Your task to perform on an android device: change the upload size in google photos Image 0: 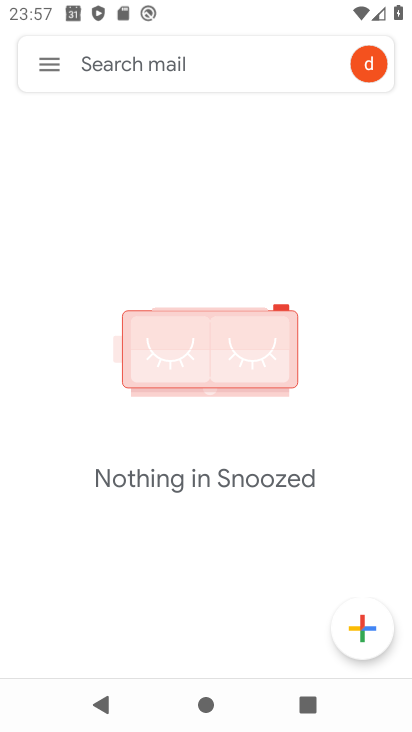
Step 0: press home button
Your task to perform on an android device: change the upload size in google photos Image 1: 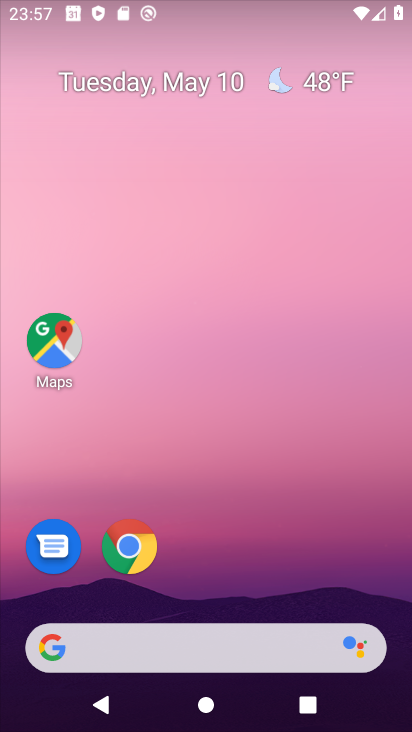
Step 1: drag from (219, 585) to (241, 108)
Your task to perform on an android device: change the upload size in google photos Image 2: 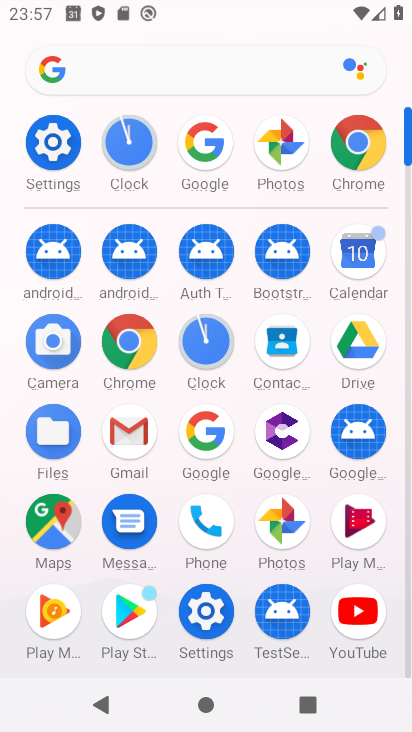
Step 2: click (278, 540)
Your task to perform on an android device: change the upload size in google photos Image 3: 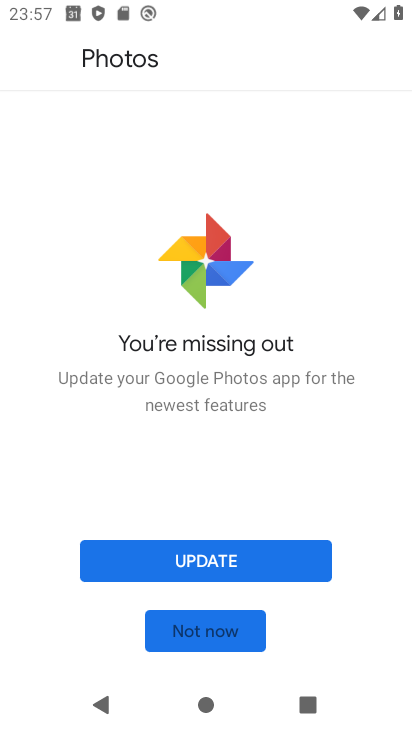
Step 3: click (236, 635)
Your task to perform on an android device: change the upload size in google photos Image 4: 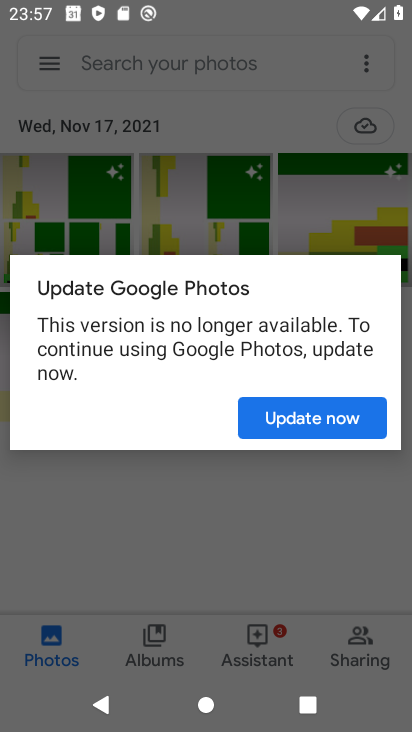
Step 4: click (319, 429)
Your task to perform on an android device: change the upload size in google photos Image 5: 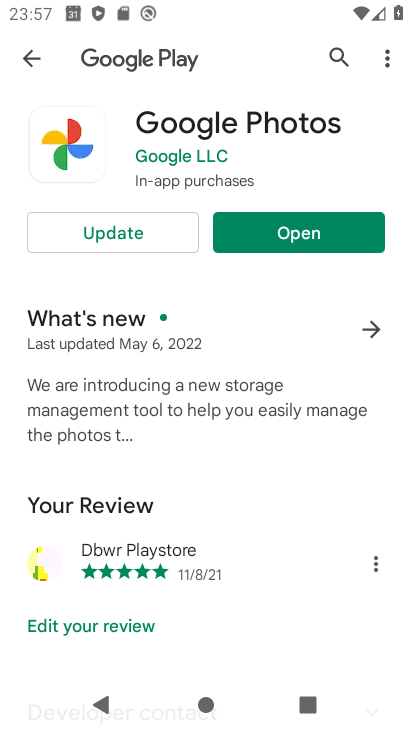
Step 5: click (293, 233)
Your task to perform on an android device: change the upload size in google photos Image 6: 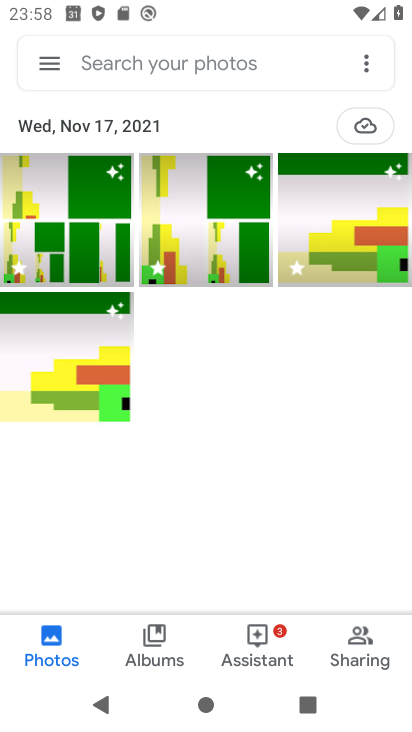
Step 6: click (54, 59)
Your task to perform on an android device: change the upload size in google photos Image 7: 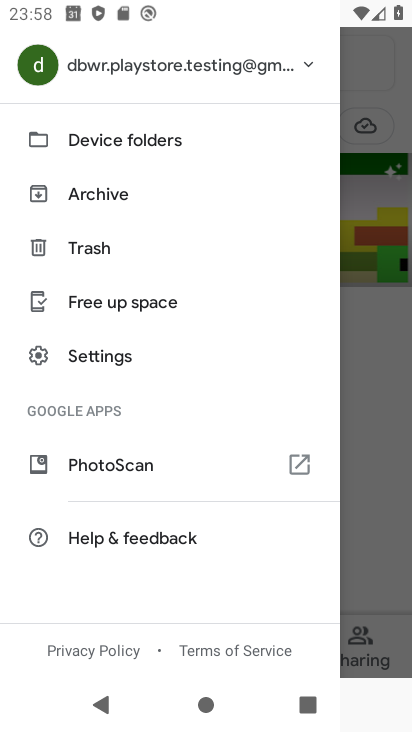
Step 7: click (115, 364)
Your task to perform on an android device: change the upload size in google photos Image 8: 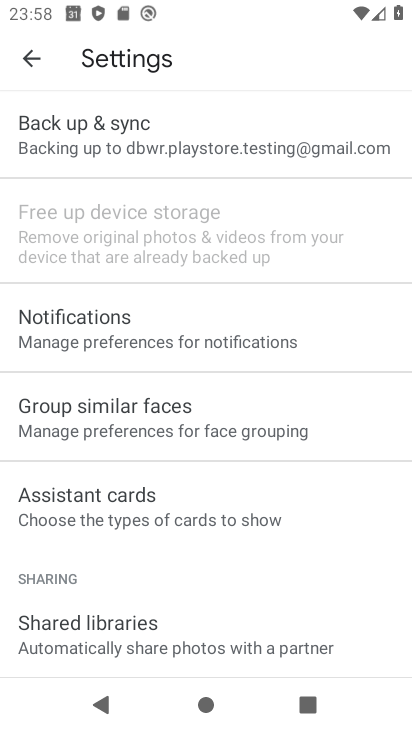
Step 8: drag from (169, 538) to (200, 263)
Your task to perform on an android device: change the upload size in google photos Image 9: 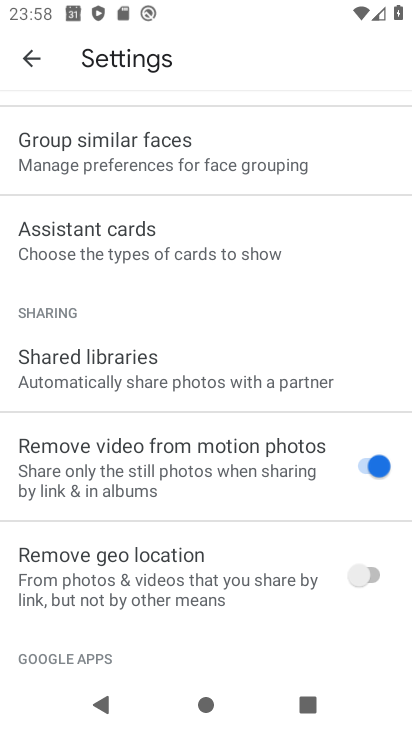
Step 9: drag from (200, 269) to (214, 653)
Your task to perform on an android device: change the upload size in google photos Image 10: 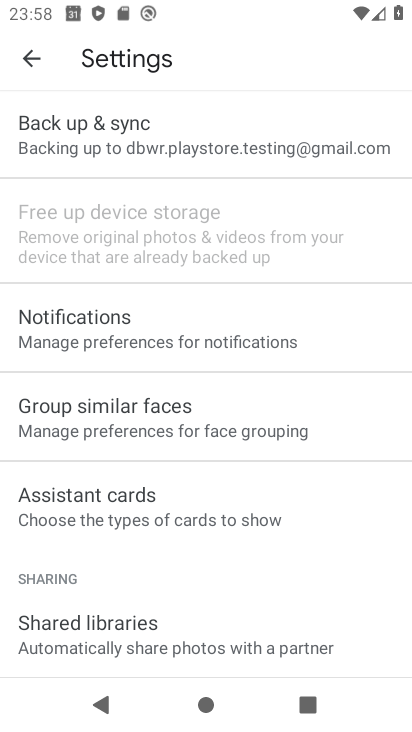
Step 10: click (95, 158)
Your task to perform on an android device: change the upload size in google photos Image 11: 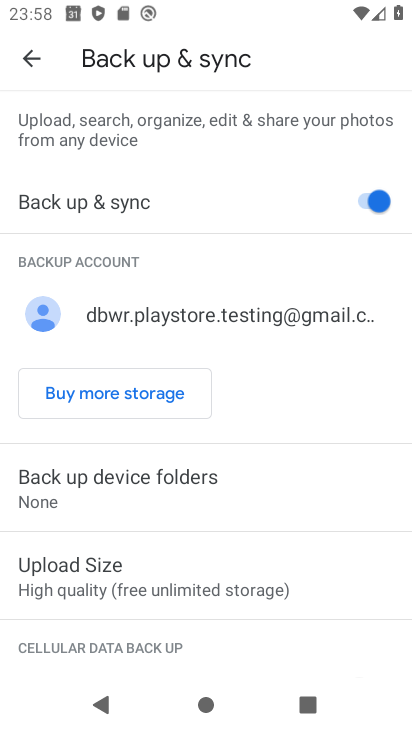
Step 11: drag from (194, 560) to (218, 409)
Your task to perform on an android device: change the upload size in google photos Image 12: 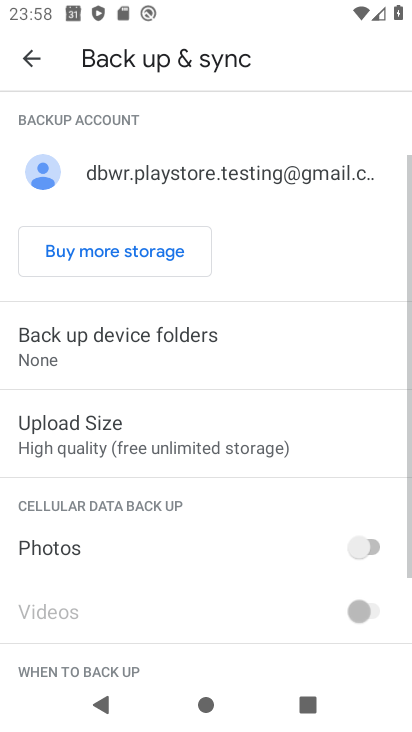
Step 12: click (130, 425)
Your task to perform on an android device: change the upload size in google photos Image 13: 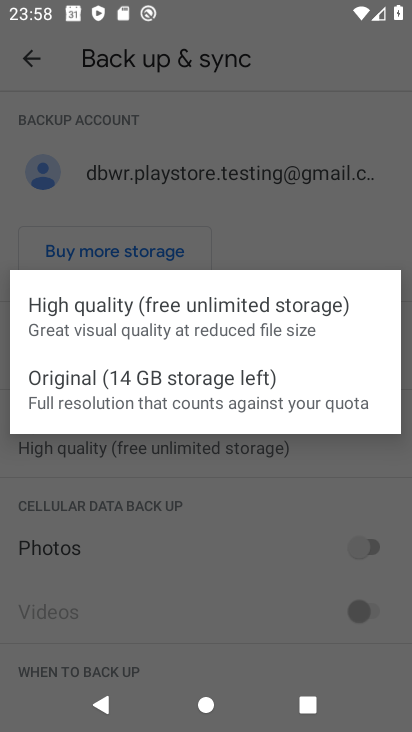
Step 13: click (129, 399)
Your task to perform on an android device: change the upload size in google photos Image 14: 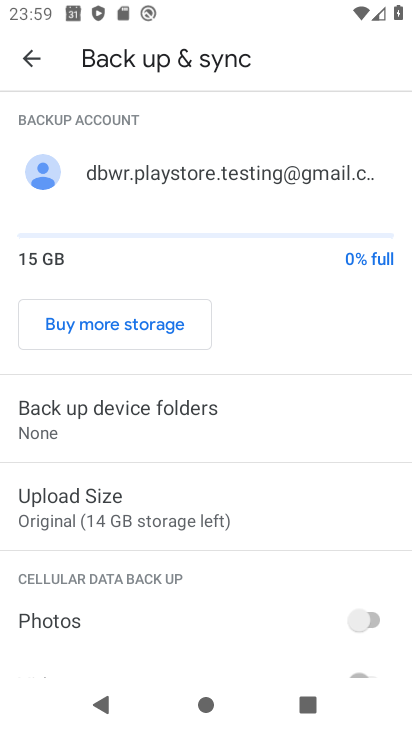
Step 14: task complete